Your task to perform on an android device: find which apps use the phone's location Image 0: 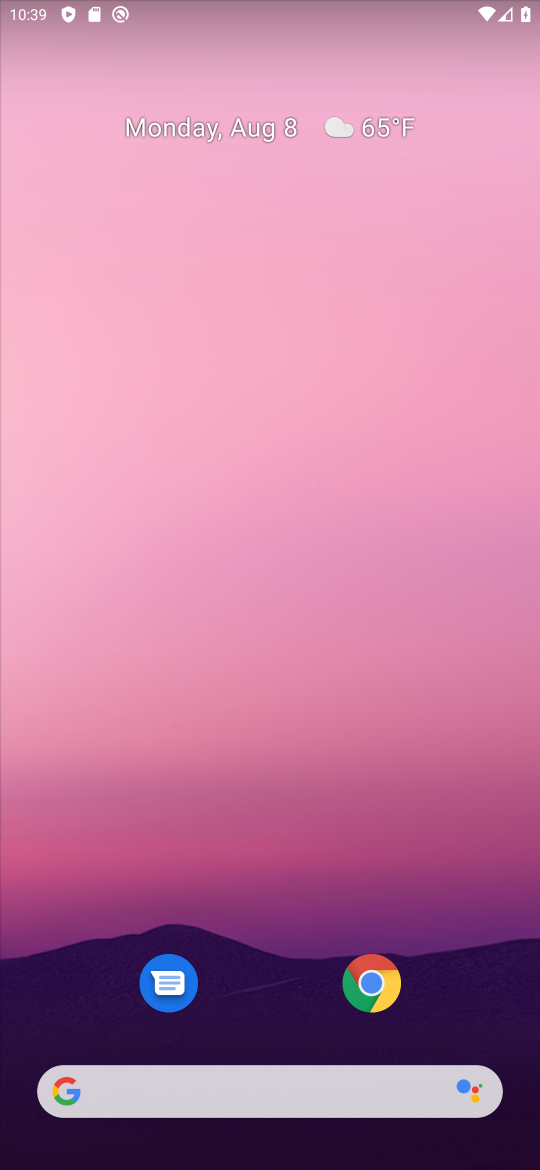
Step 0: drag from (251, 1055) to (441, 59)
Your task to perform on an android device: find which apps use the phone's location Image 1: 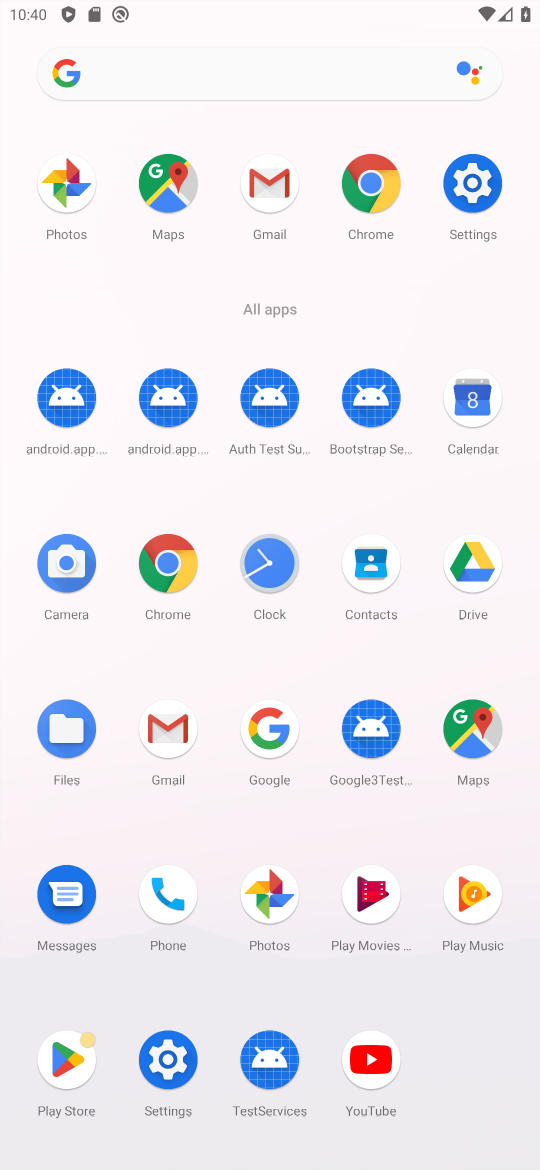
Step 1: click (462, 186)
Your task to perform on an android device: find which apps use the phone's location Image 2: 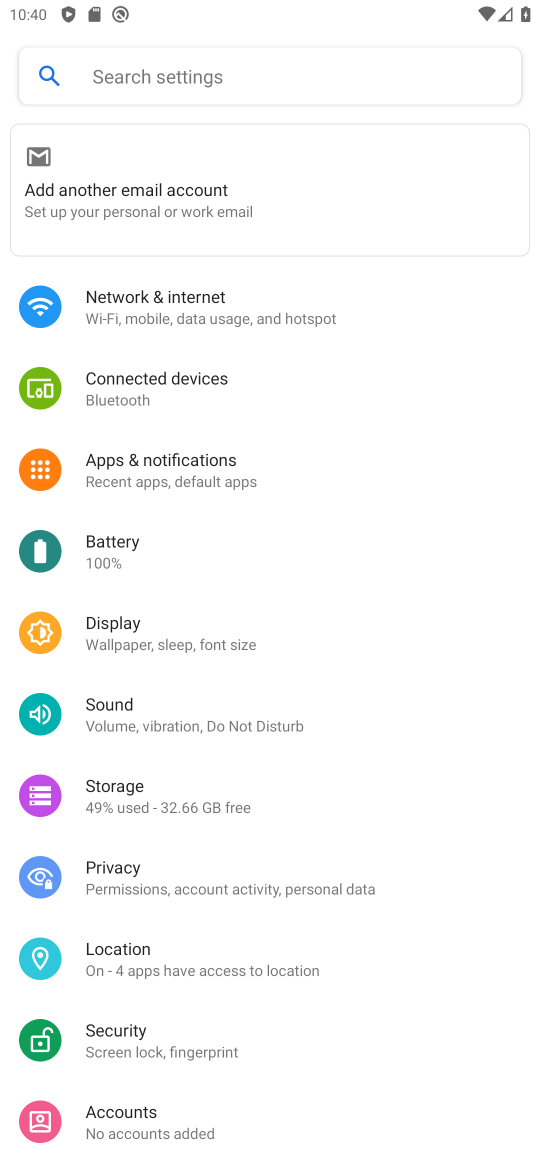
Step 2: click (226, 511)
Your task to perform on an android device: find which apps use the phone's location Image 3: 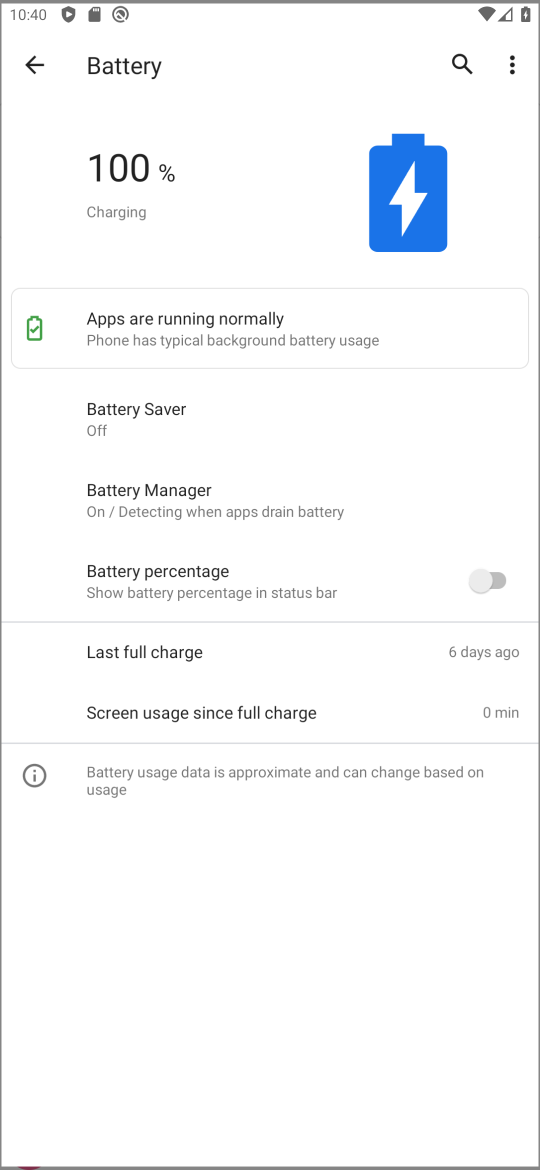
Step 3: task complete